Your task to perform on an android device: delete location history Image 0: 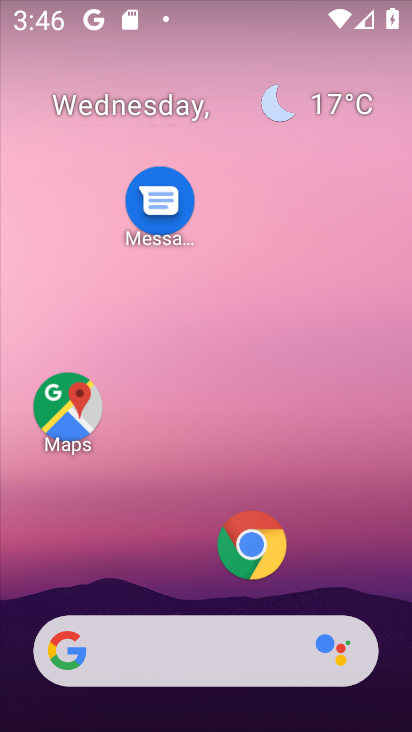
Step 0: click (67, 416)
Your task to perform on an android device: delete location history Image 1: 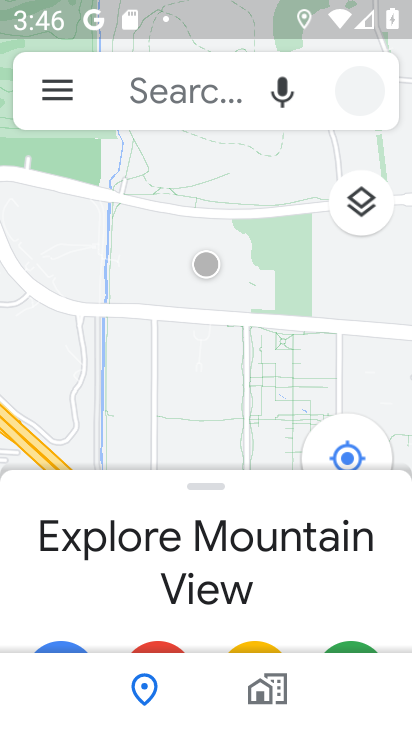
Step 1: click (72, 90)
Your task to perform on an android device: delete location history Image 2: 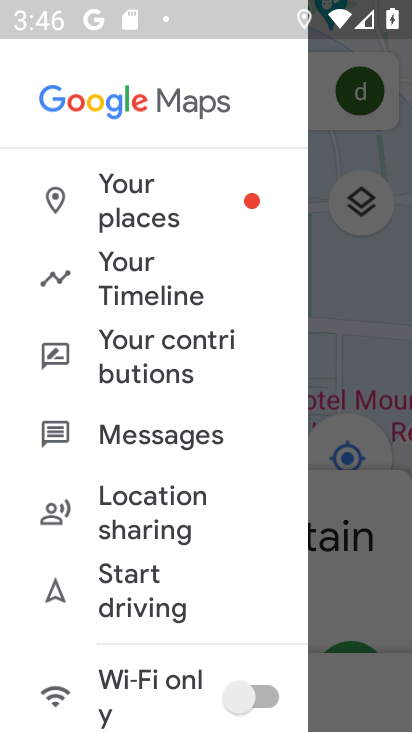
Step 2: click (139, 299)
Your task to perform on an android device: delete location history Image 3: 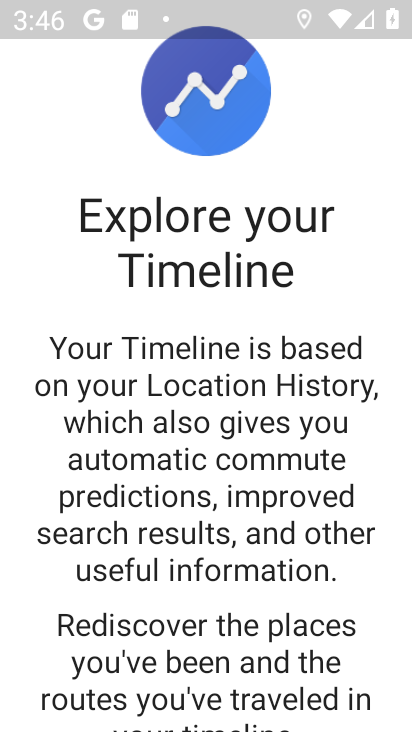
Step 3: drag from (253, 603) to (294, 348)
Your task to perform on an android device: delete location history Image 4: 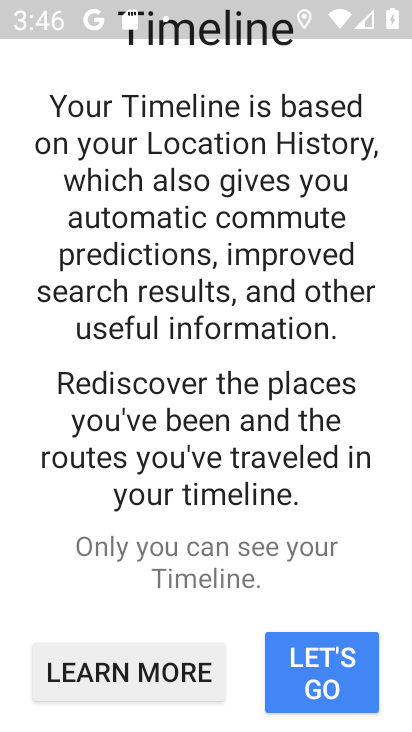
Step 4: click (306, 686)
Your task to perform on an android device: delete location history Image 5: 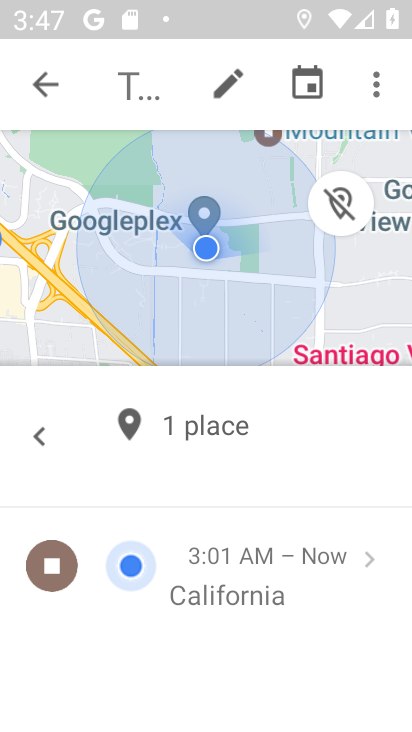
Step 5: click (381, 79)
Your task to perform on an android device: delete location history Image 6: 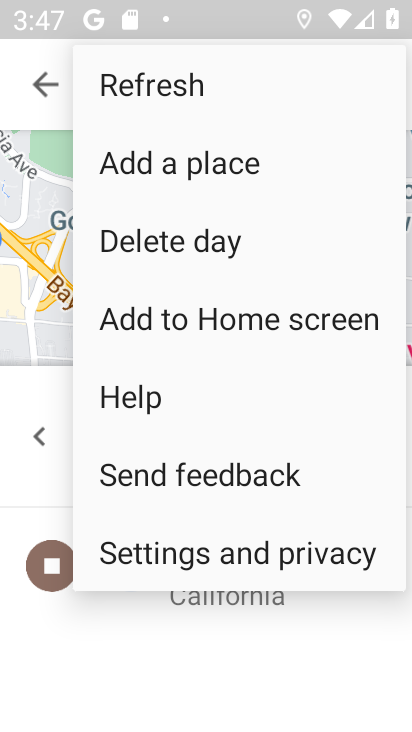
Step 6: click (265, 547)
Your task to perform on an android device: delete location history Image 7: 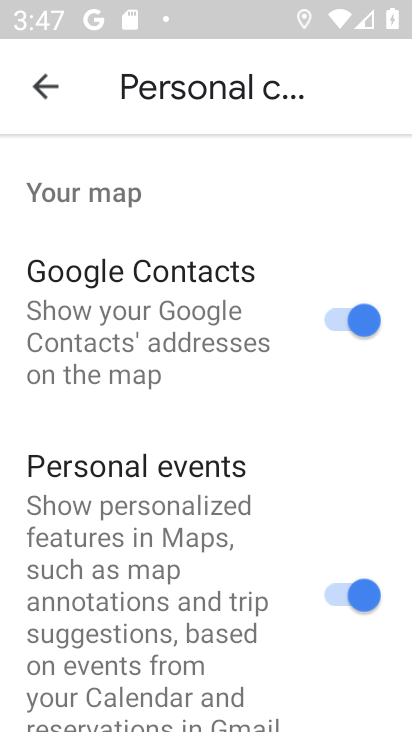
Step 7: drag from (202, 611) to (298, 112)
Your task to perform on an android device: delete location history Image 8: 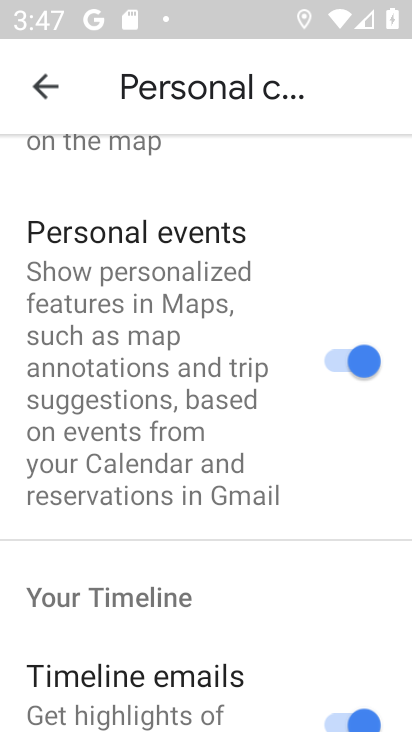
Step 8: drag from (212, 665) to (164, 182)
Your task to perform on an android device: delete location history Image 9: 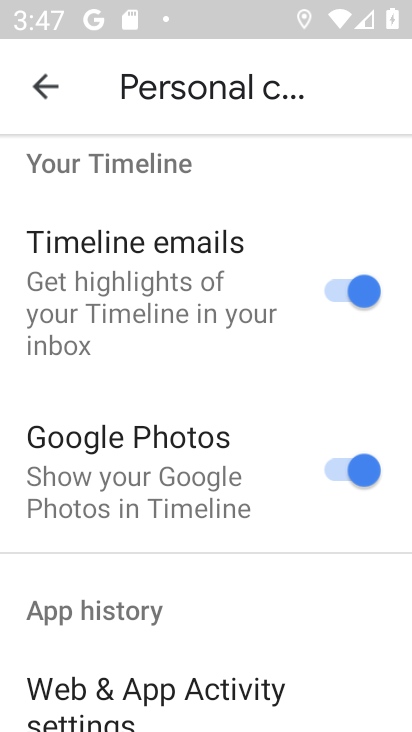
Step 9: drag from (203, 586) to (151, 341)
Your task to perform on an android device: delete location history Image 10: 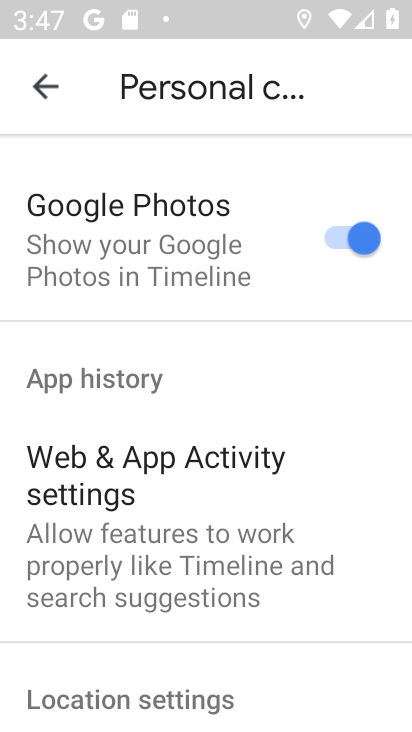
Step 10: drag from (225, 673) to (160, 178)
Your task to perform on an android device: delete location history Image 11: 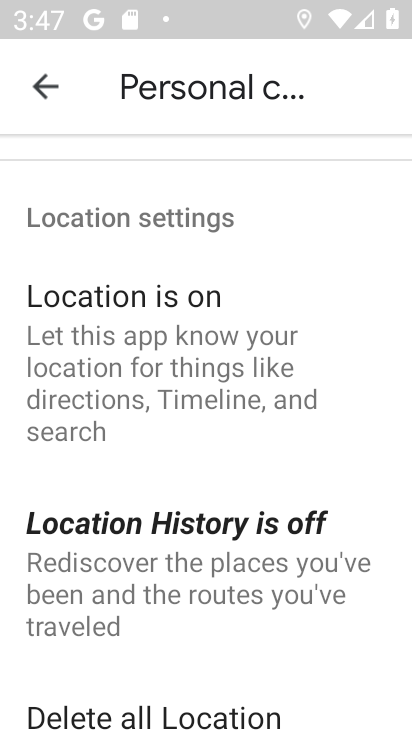
Step 11: drag from (229, 664) to (206, 377)
Your task to perform on an android device: delete location history Image 12: 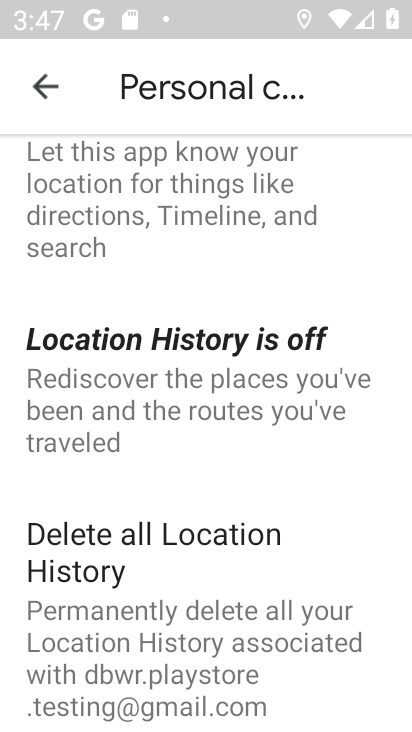
Step 12: click (179, 607)
Your task to perform on an android device: delete location history Image 13: 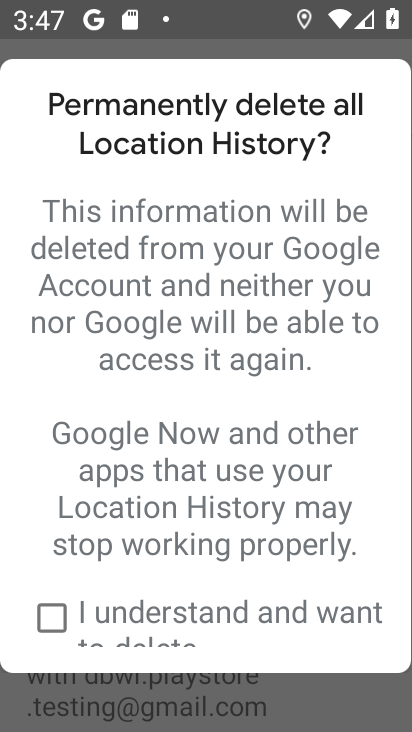
Step 13: click (62, 617)
Your task to perform on an android device: delete location history Image 14: 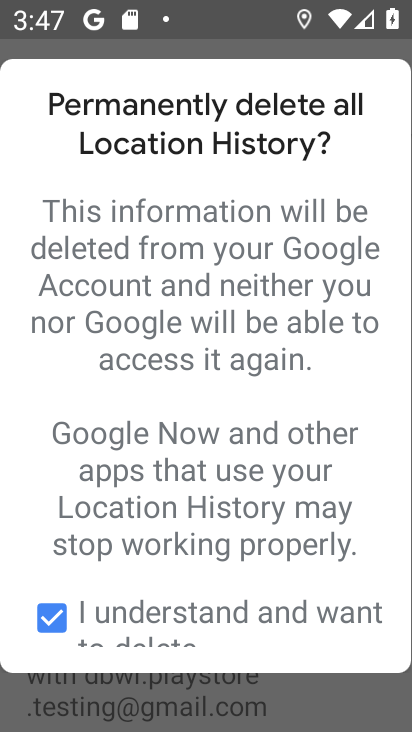
Step 14: drag from (230, 511) to (231, 231)
Your task to perform on an android device: delete location history Image 15: 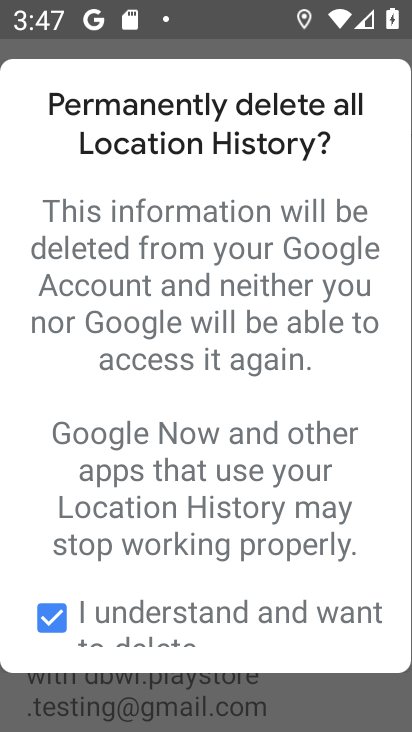
Step 15: drag from (253, 543) to (258, 66)
Your task to perform on an android device: delete location history Image 16: 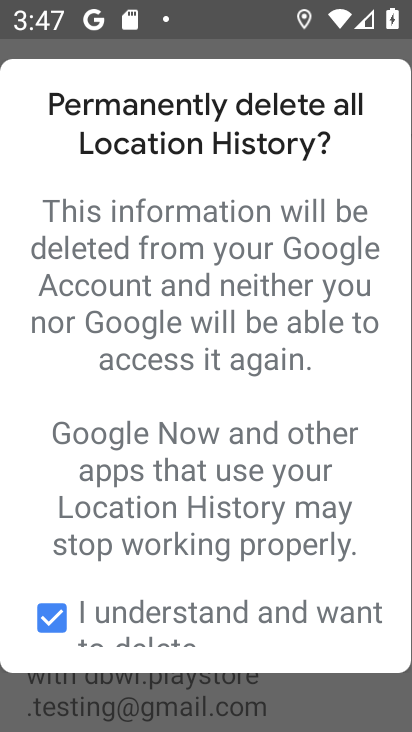
Step 16: drag from (270, 613) to (263, 313)
Your task to perform on an android device: delete location history Image 17: 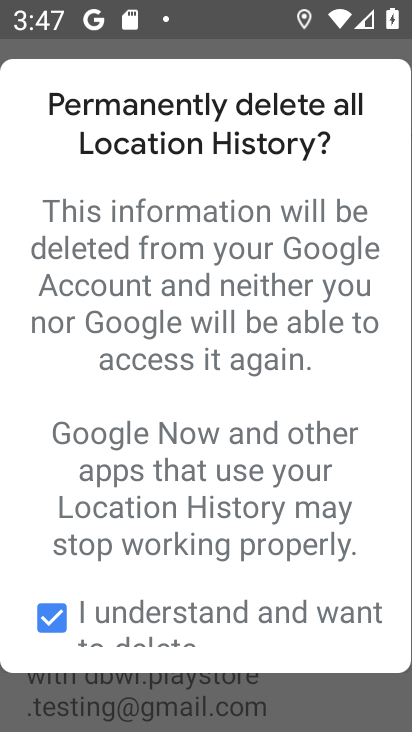
Step 17: drag from (200, 636) to (210, 235)
Your task to perform on an android device: delete location history Image 18: 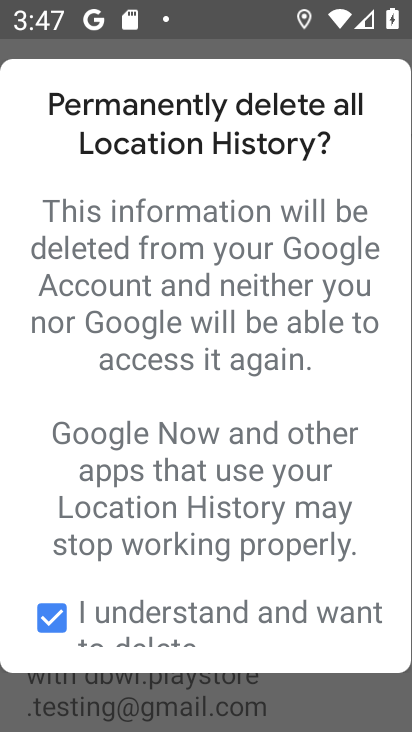
Step 18: click (258, 605)
Your task to perform on an android device: delete location history Image 19: 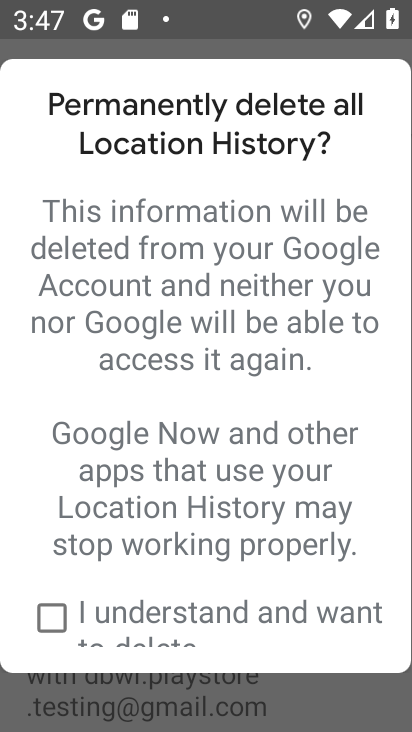
Step 19: drag from (192, 616) to (200, 372)
Your task to perform on an android device: delete location history Image 20: 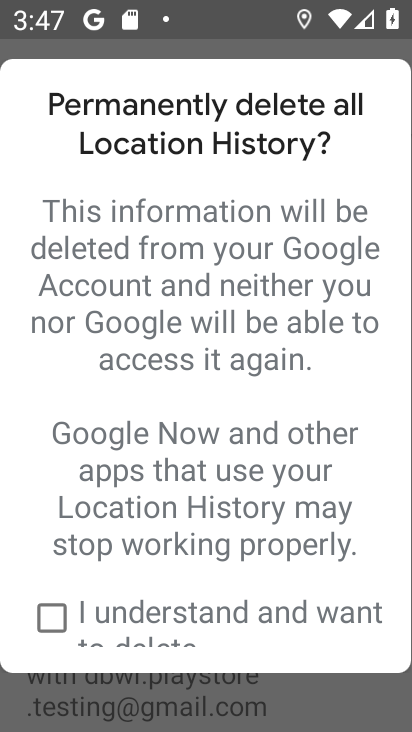
Step 20: drag from (257, 578) to (222, 236)
Your task to perform on an android device: delete location history Image 21: 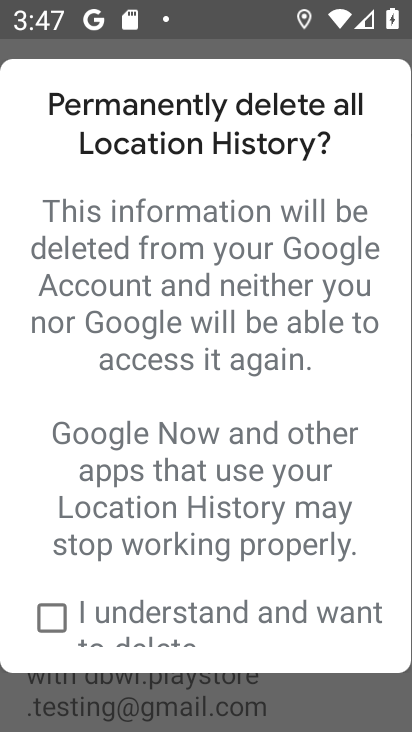
Step 21: drag from (311, 712) to (306, 250)
Your task to perform on an android device: delete location history Image 22: 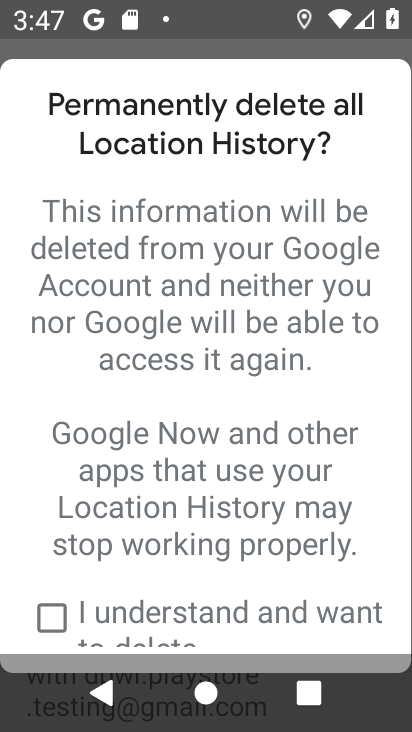
Step 22: drag from (293, 630) to (311, 180)
Your task to perform on an android device: delete location history Image 23: 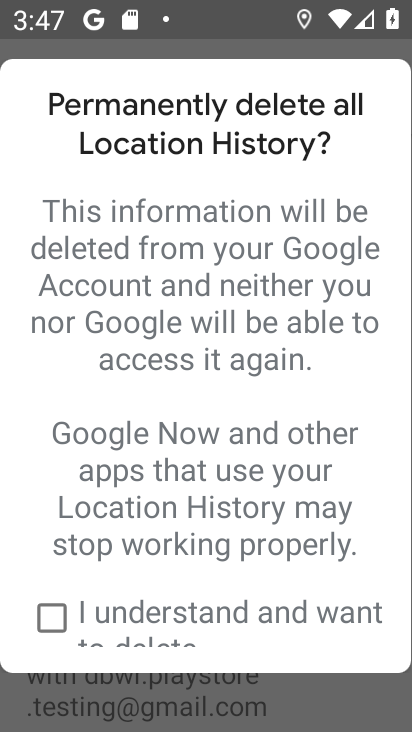
Step 23: drag from (179, 602) to (163, 156)
Your task to perform on an android device: delete location history Image 24: 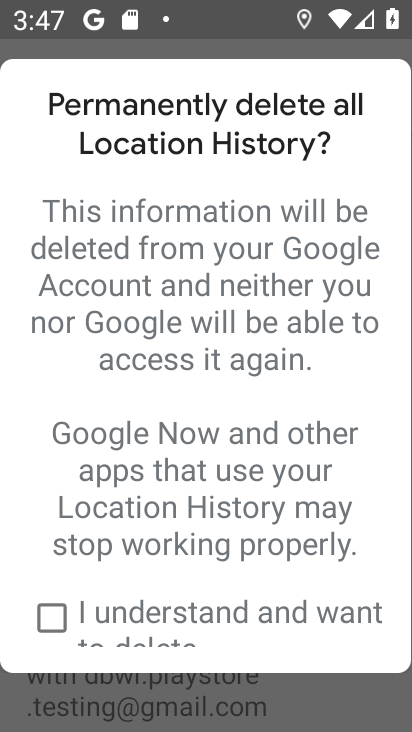
Step 24: click (57, 618)
Your task to perform on an android device: delete location history Image 25: 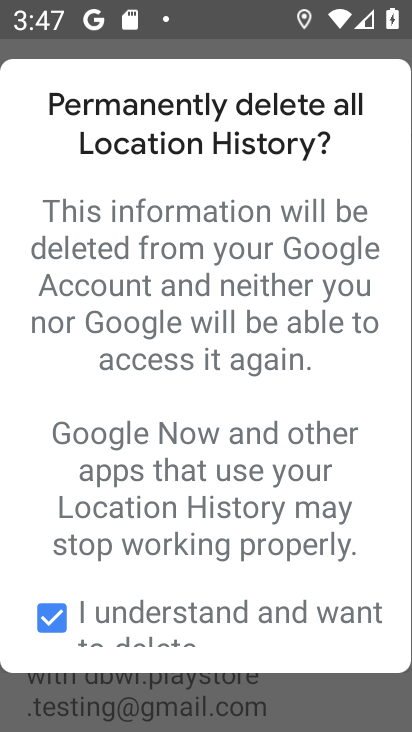
Step 25: task complete